Your task to perform on an android device: Do I have any events today? Image 0: 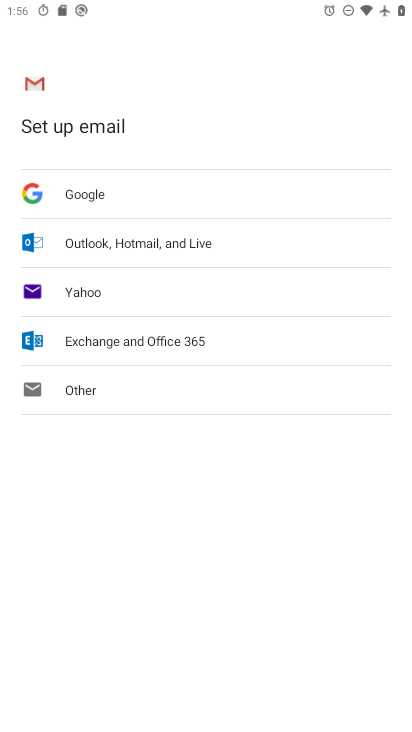
Step 0: press home button
Your task to perform on an android device: Do I have any events today? Image 1: 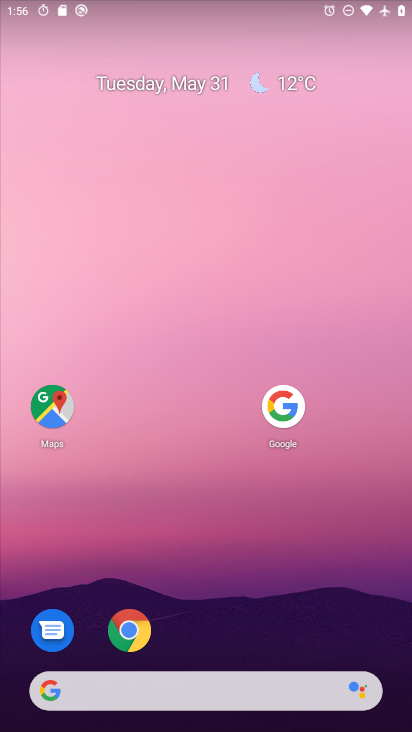
Step 1: drag from (98, 700) to (233, 207)
Your task to perform on an android device: Do I have any events today? Image 2: 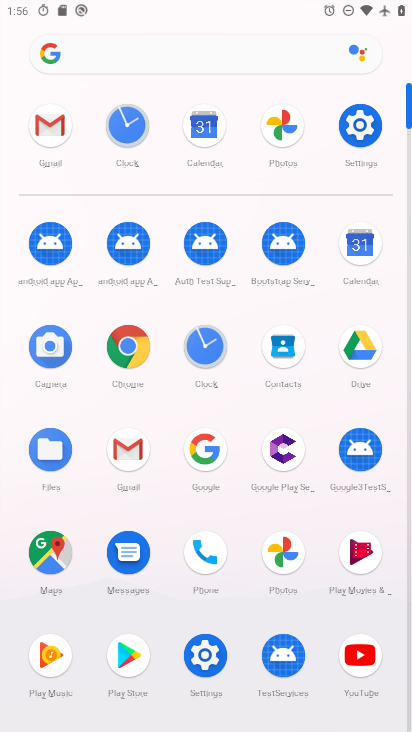
Step 2: click (359, 249)
Your task to perform on an android device: Do I have any events today? Image 3: 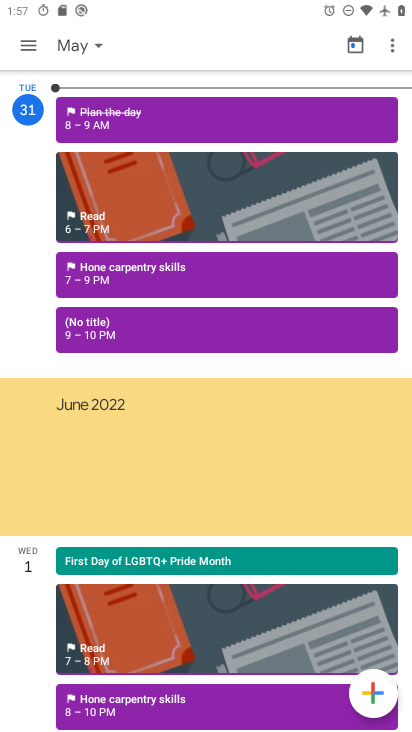
Step 3: click (74, 45)
Your task to perform on an android device: Do I have any events today? Image 4: 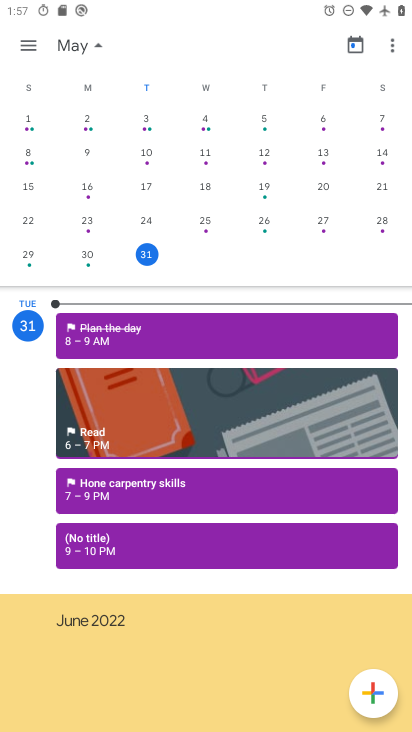
Step 4: click (22, 44)
Your task to perform on an android device: Do I have any events today? Image 5: 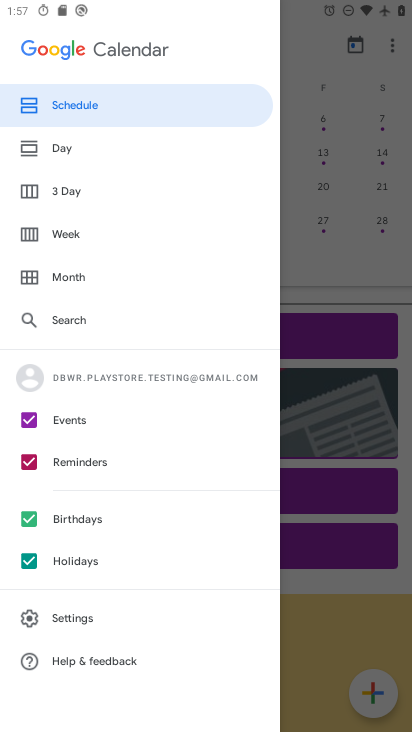
Step 5: click (75, 109)
Your task to perform on an android device: Do I have any events today? Image 6: 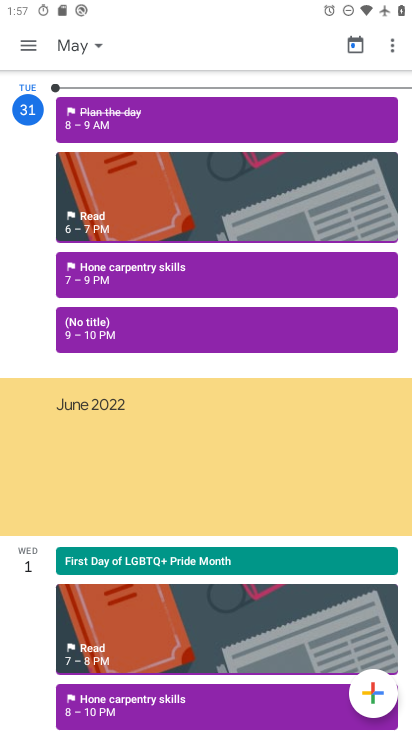
Step 6: click (170, 339)
Your task to perform on an android device: Do I have any events today? Image 7: 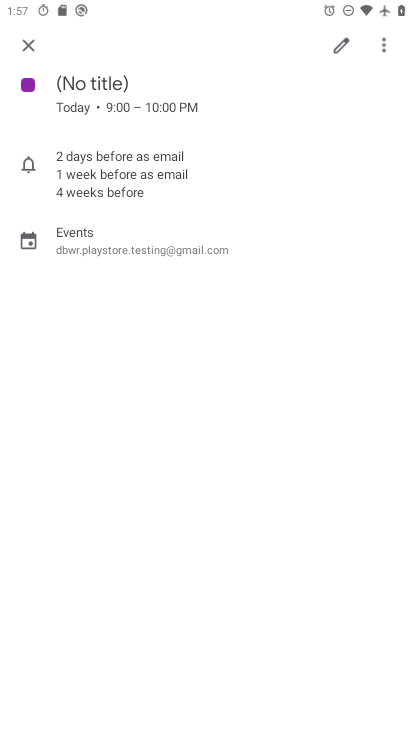
Step 7: task complete